Your task to perform on an android device: open app "Etsy: Buy & Sell Unique Items" Image 0: 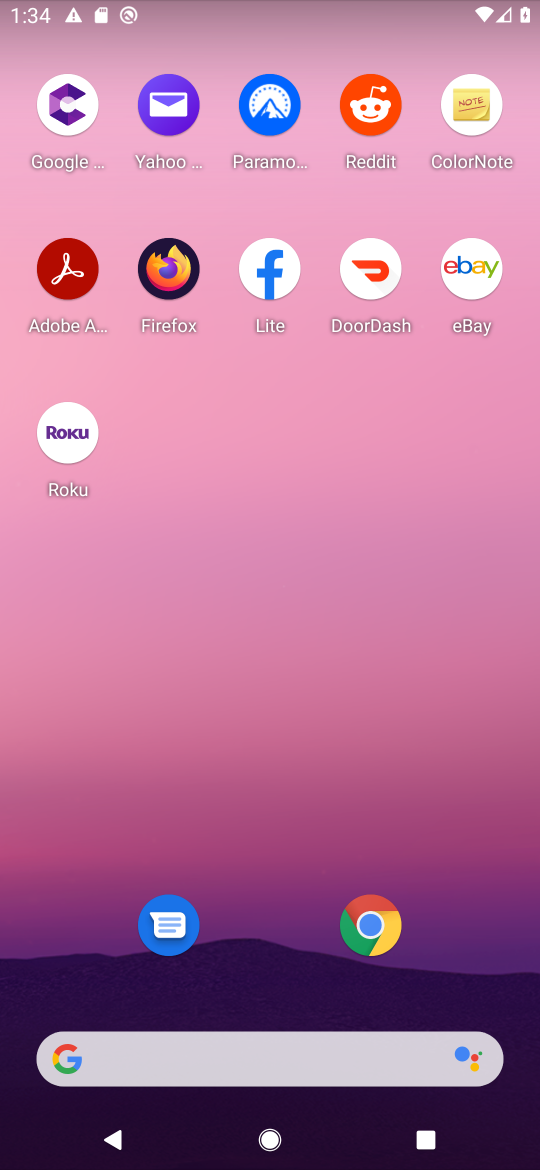
Step 0: drag from (246, 943) to (246, 31)
Your task to perform on an android device: open app "Etsy: Buy & Sell Unique Items" Image 1: 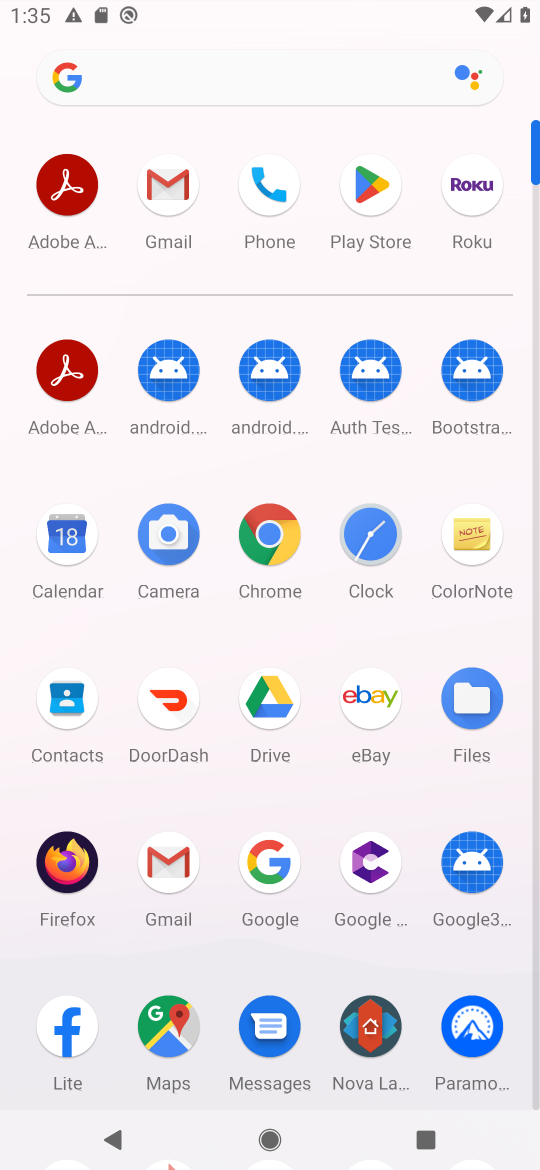
Step 1: click (360, 192)
Your task to perform on an android device: open app "Etsy: Buy & Sell Unique Items" Image 2: 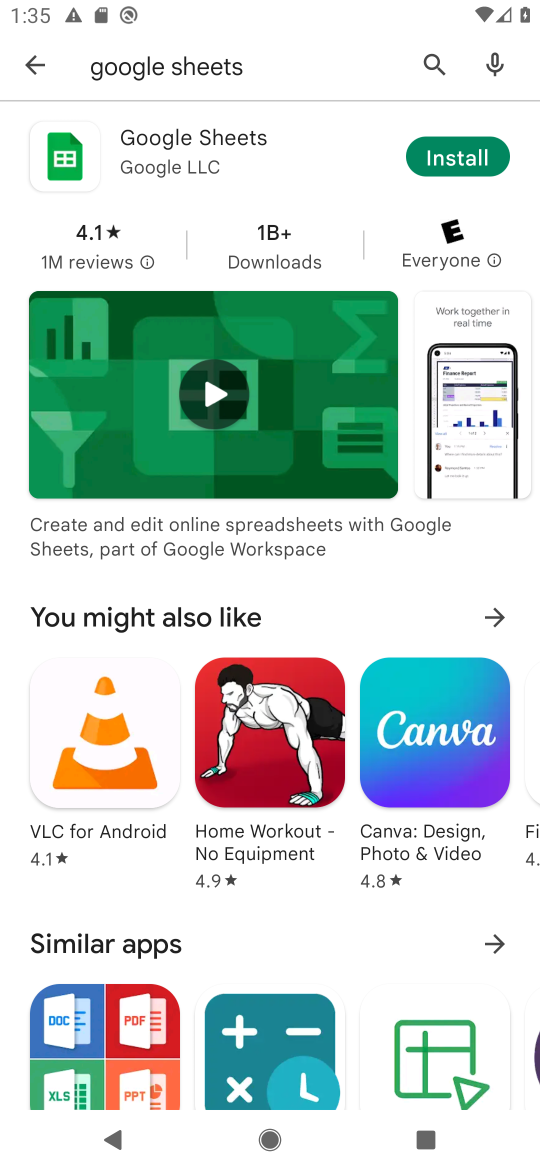
Step 2: click (45, 74)
Your task to perform on an android device: open app "Etsy: Buy & Sell Unique Items" Image 3: 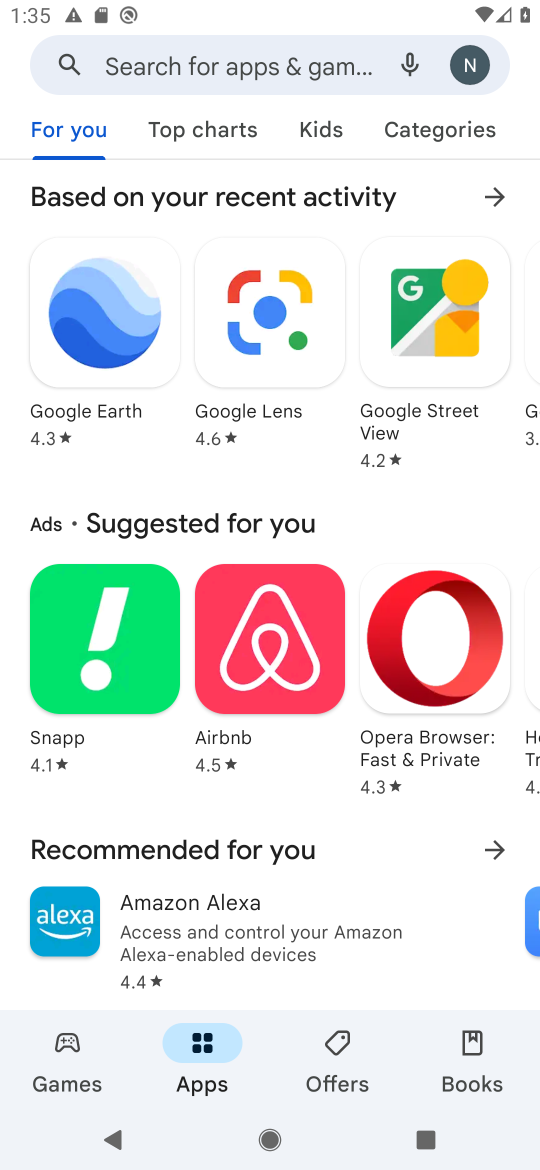
Step 3: click (154, 74)
Your task to perform on an android device: open app "Etsy: Buy & Sell Unique Items" Image 4: 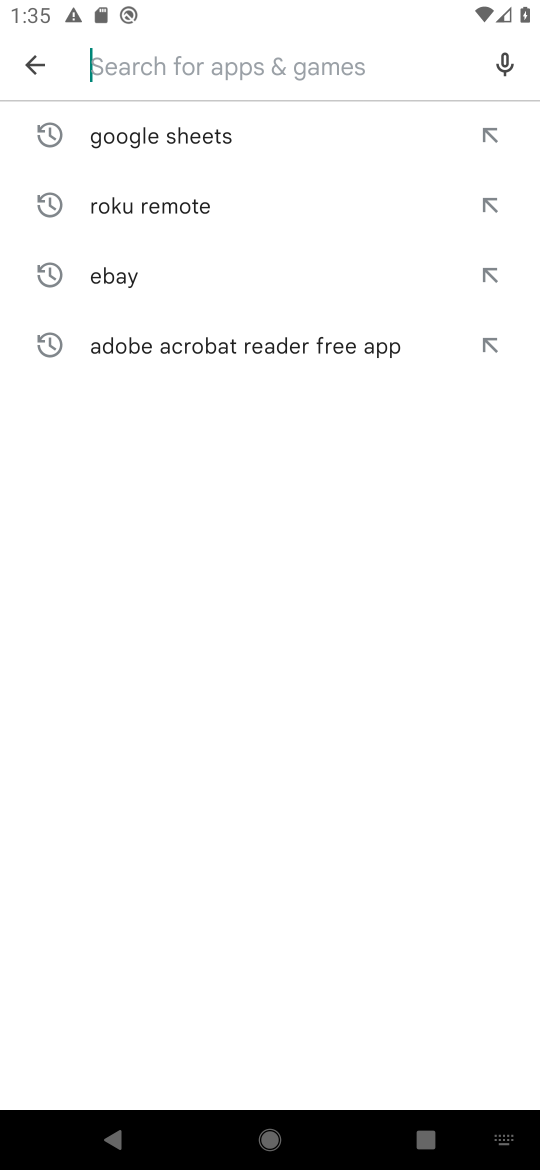
Step 4: type "Etsy"
Your task to perform on an android device: open app "Etsy: Buy & Sell Unique Items" Image 5: 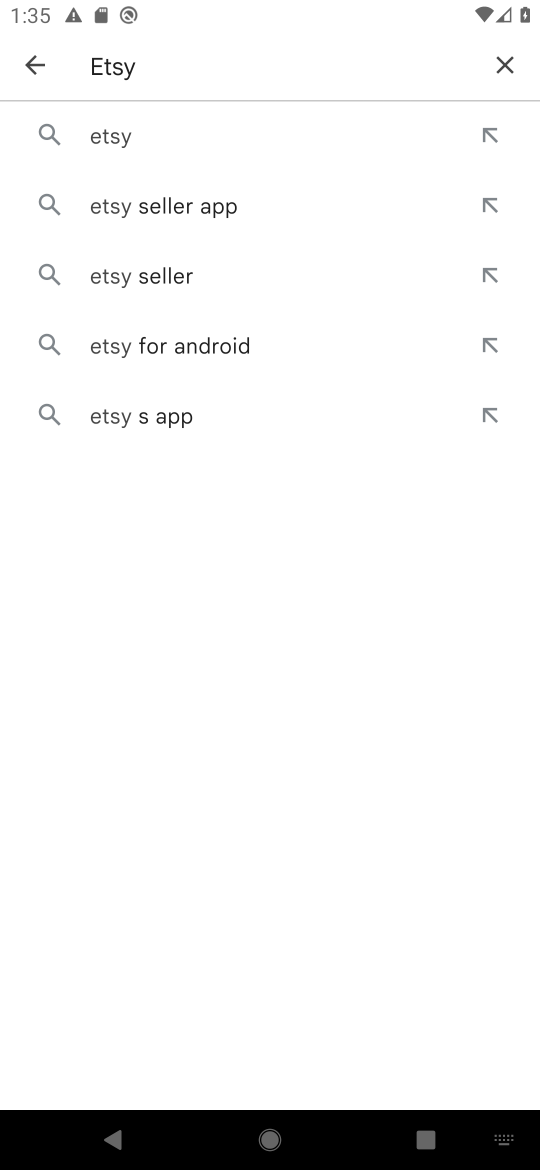
Step 5: click (102, 151)
Your task to perform on an android device: open app "Etsy: Buy & Sell Unique Items" Image 6: 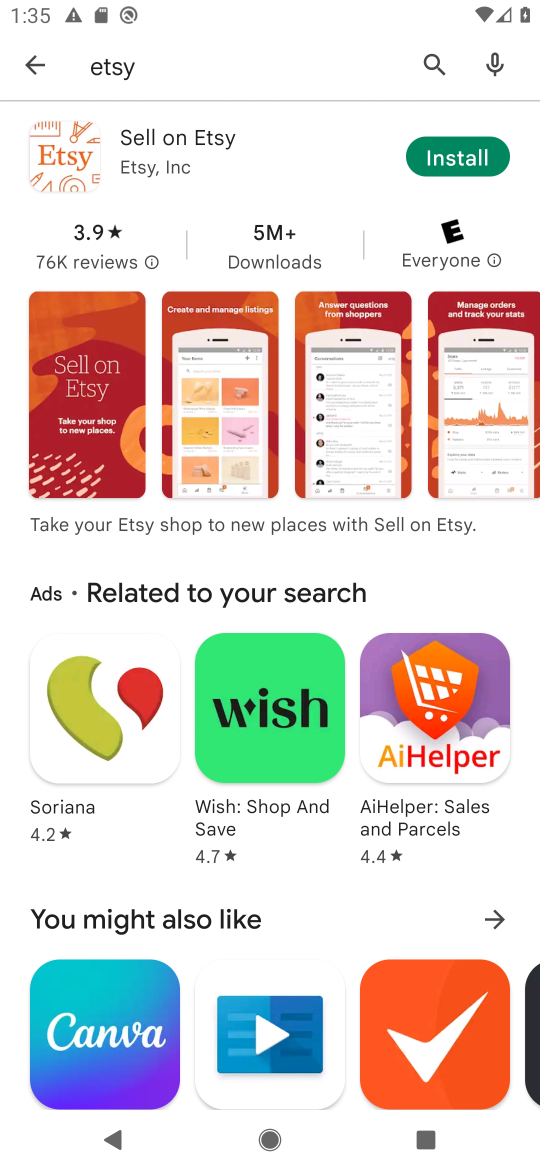
Step 6: click (433, 162)
Your task to perform on an android device: open app "Etsy: Buy & Sell Unique Items" Image 7: 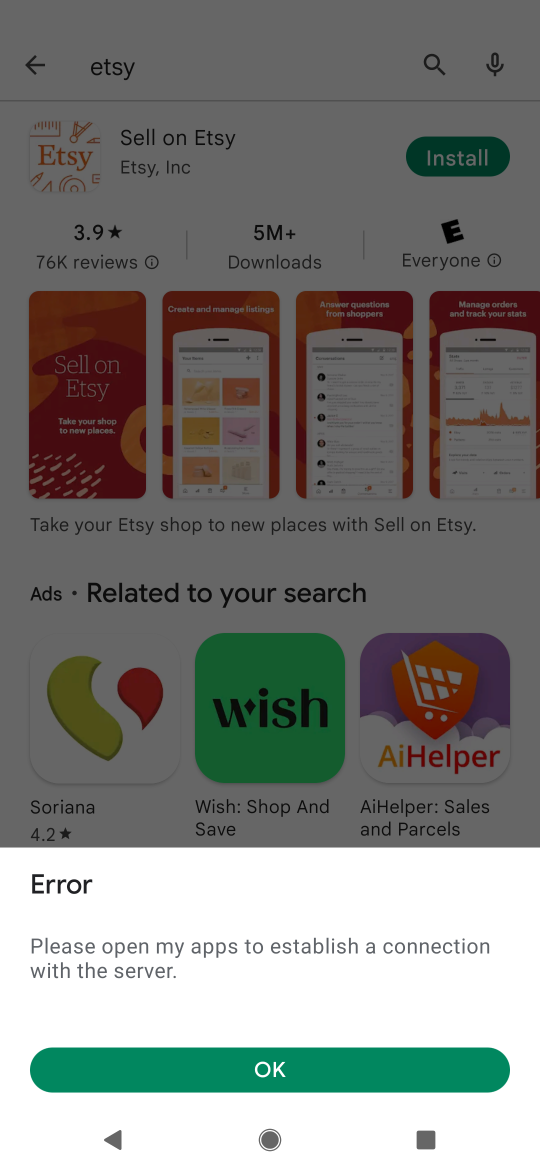
Step 7: click (277, 1075)
Your task to perform on an android device: open app "Etsy: Buy & Sell Unique Items" Image 8: 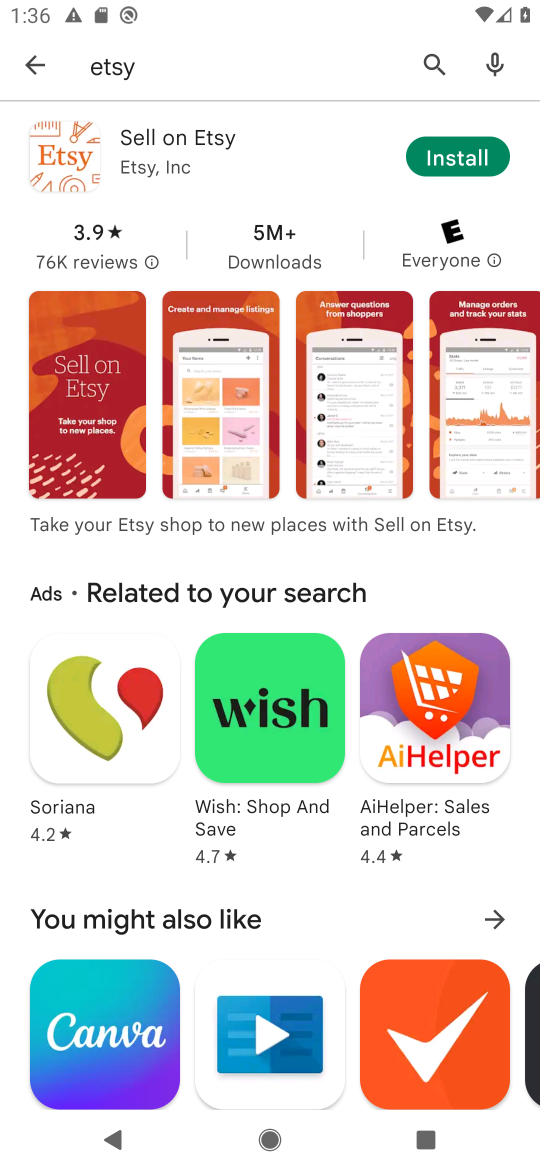
Step 8: task complete